Your task to perform on an android device: turn off smart reply in the gmail app Image 0: 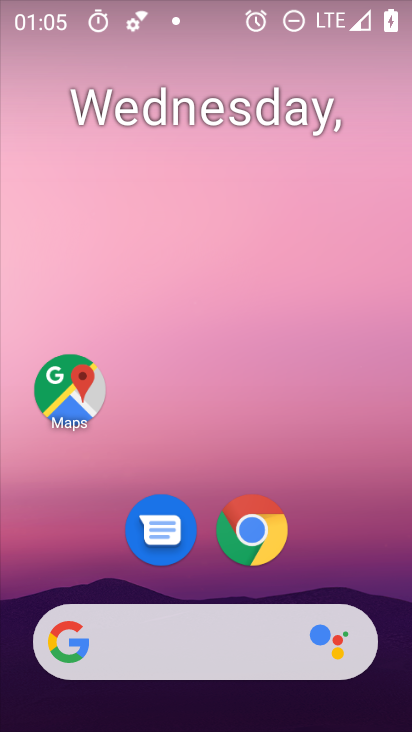
Step 0: drag from (306, 641) to (373, 43)
Your task to perform on an android device: turn off smart reply in the gmail app Image 1: 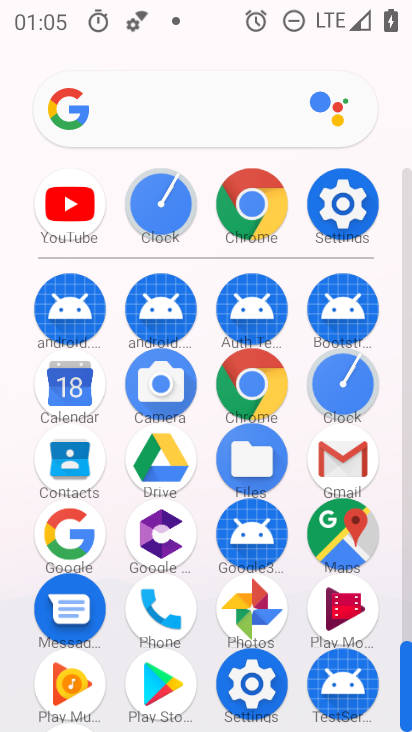
Step 1: click (370, 459)
Your task to perform on an android device: turn off smart reply in the gmail app Image 2: 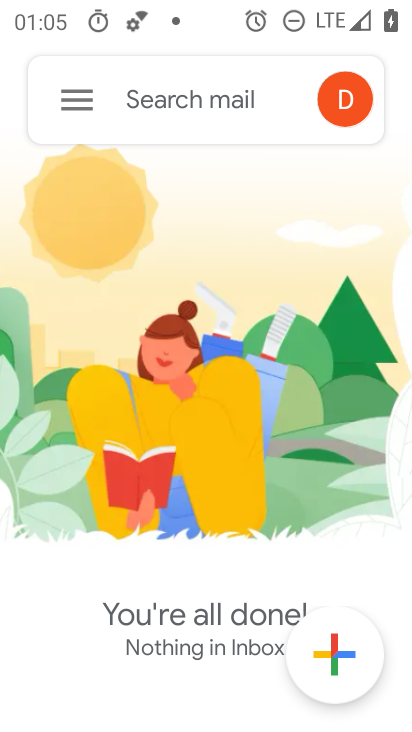
Step 2: click (57, 106)
Your task to perform on an android device: turn off smart reply in the gmail app Image 3: 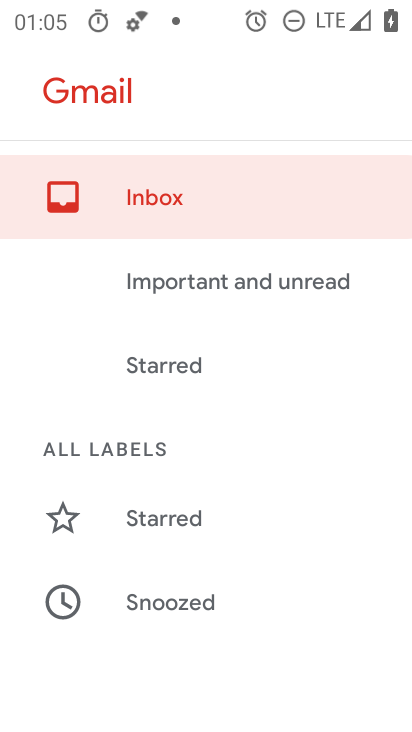
Step 3: drag from (184, 623) to (186, 153)
Your task to perform on an android device: turn off smart reply in the gmail app Image 4: 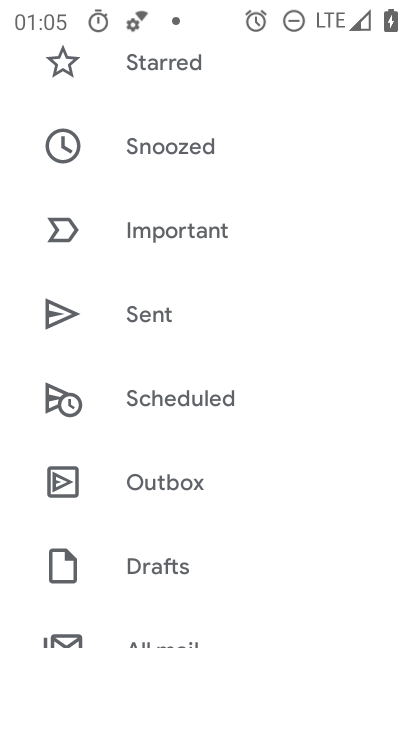
Step 4: drag from (251, 604) to (373, 198)
Your task to perform on an android device: turn off smart reply in the gmail app Image 5: 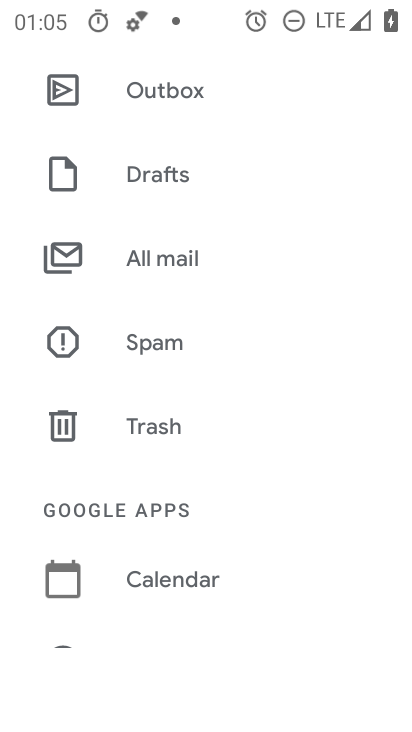
Step 5: drag from (239, 609) to (256, 176)
Your task to perform on an android device: turn off smart reply in the gmail app Image 6: 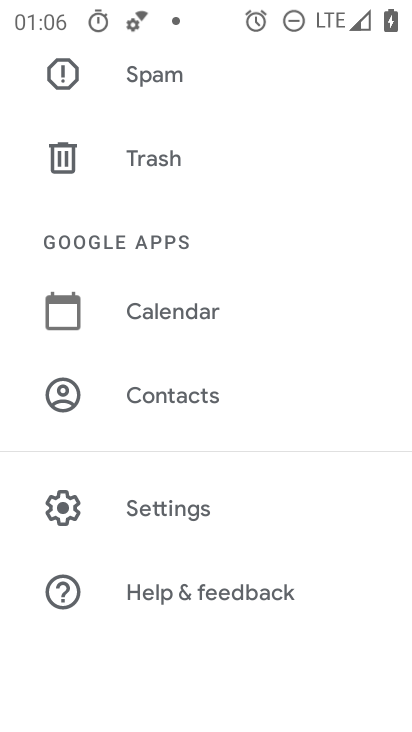
Step 6: drag from (283, 280) to (317, 163)
Your task to perform on an android device: turn off smart reply in the gmail app Image 7: 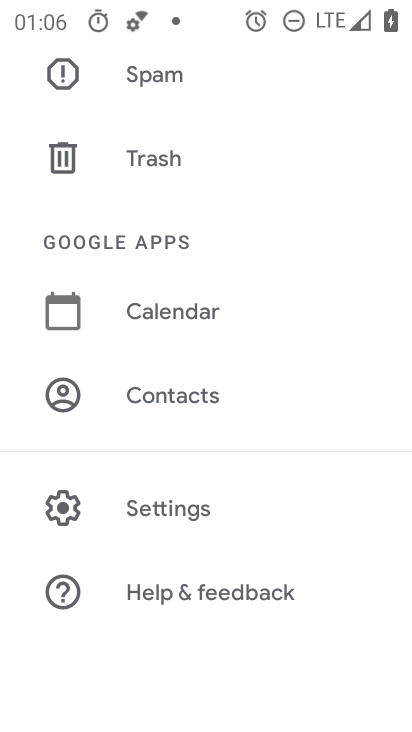
Step 7: click (206, 514)
Your task to perform on an android device: turn off smart reply in the gmail app Image 8: 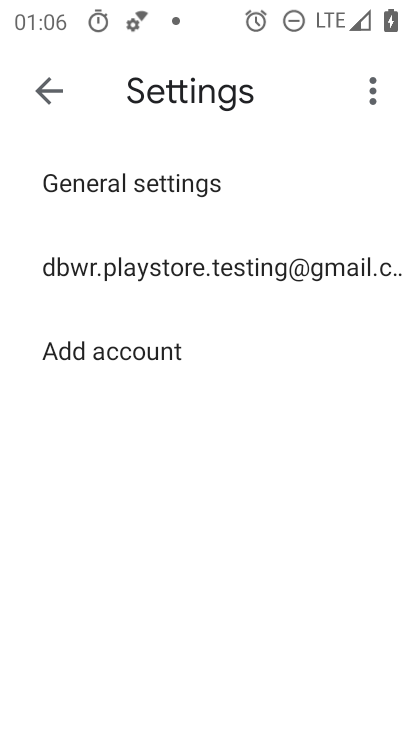
Step 8: click (314, 259)
Your task to perform on an android device: turn off smart reply in the gmail app Image 9: 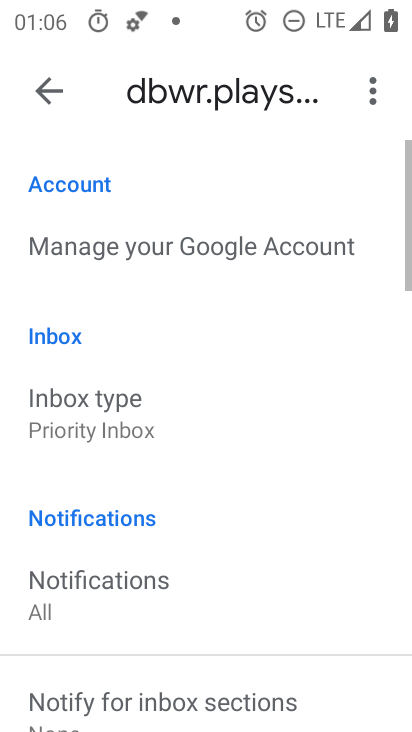
Step 9: drag from (242, 668) to (251, 205)
Your task to perform on an android device: turn off smart reply in the gmail app Image 10: 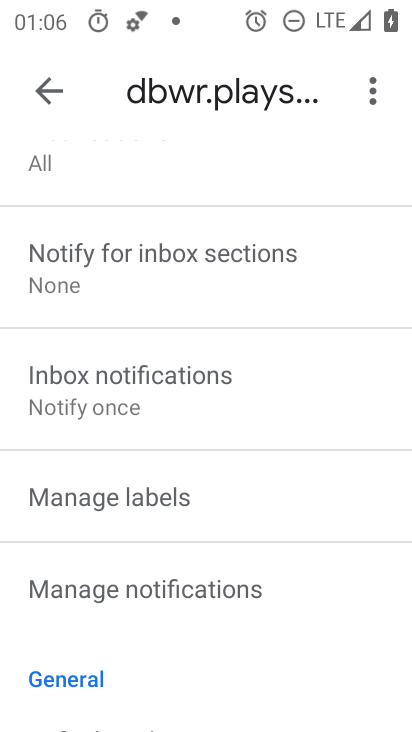
Step 10: drag from (302, 710) to (279, 320)
Your task to perform on an android device: turn off smart reply in the gmail app Image 11: 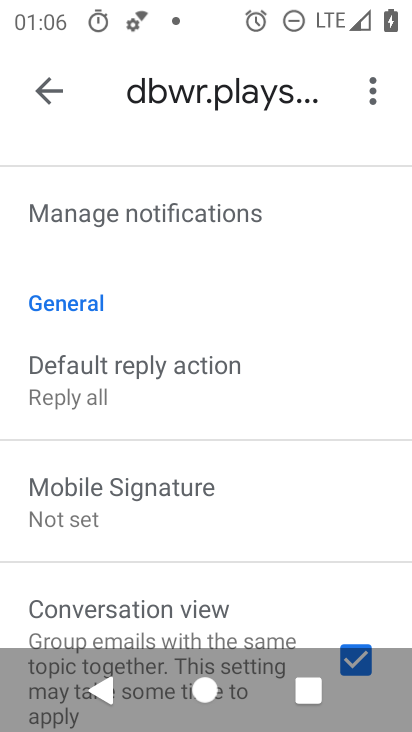
Step 11: drag from (213, 619) to (281, 147)
Your task to perform on an android device: turn off smart reply in the gmail app Image 12: 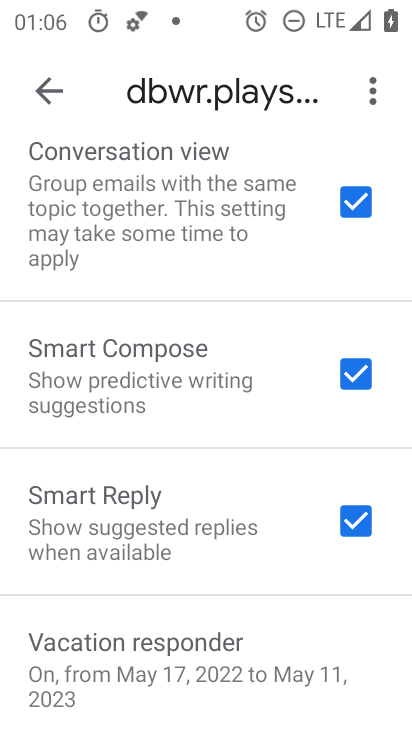
Step 12: click (369, 522)
Your task to perform on an android device: turn off smart reply in the gmail app Image 13: 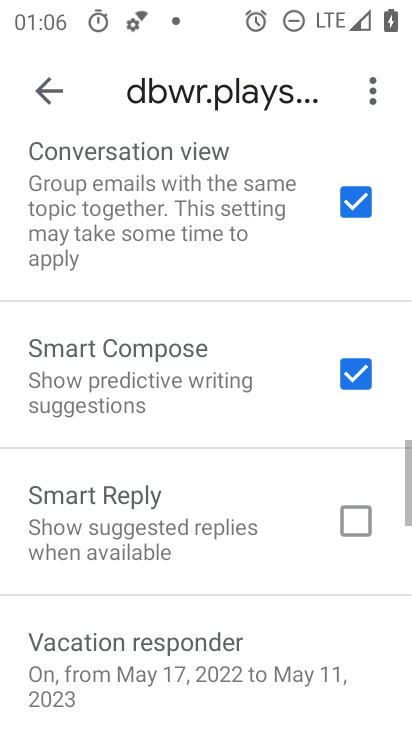
Step 13: task complete